Your task to perform on an android device: Go to network settings Image 0: 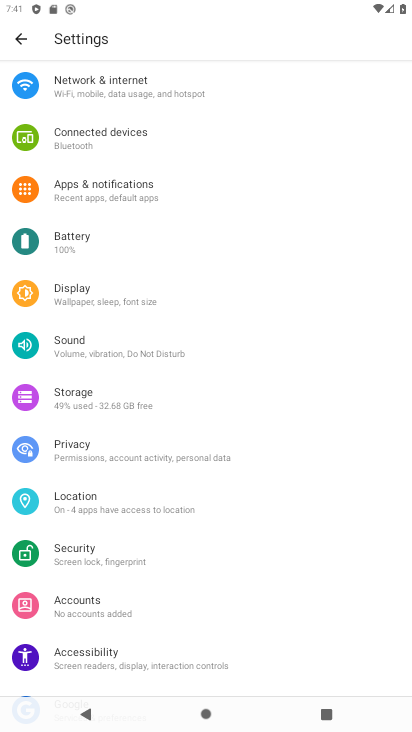
Step 0: click (118, 74)
Your task to perform on an android device: Go to network settings Image 1: 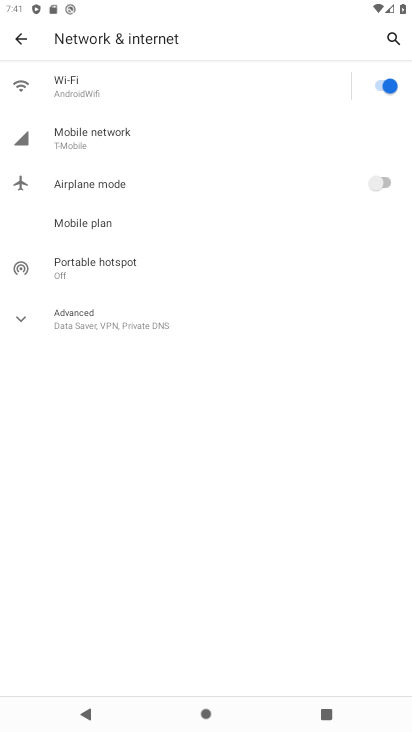
Step 1: task complete